Your task to perform on an android device: Is it going to rain this weekend? Image 0: 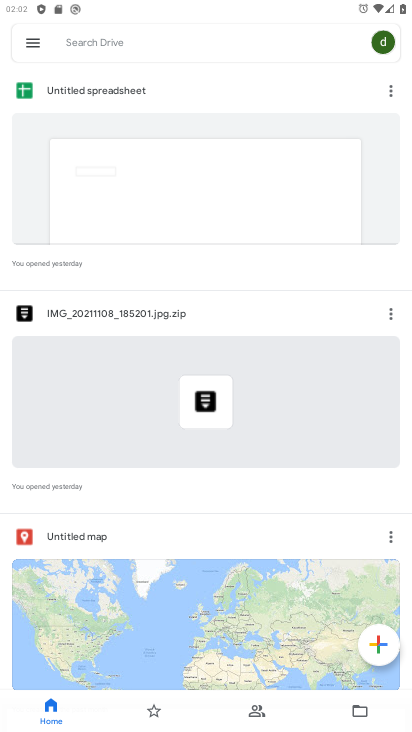
Step 0: press home button
Your task to perform on an android device: Is it going to rain this weekend? Image 1: 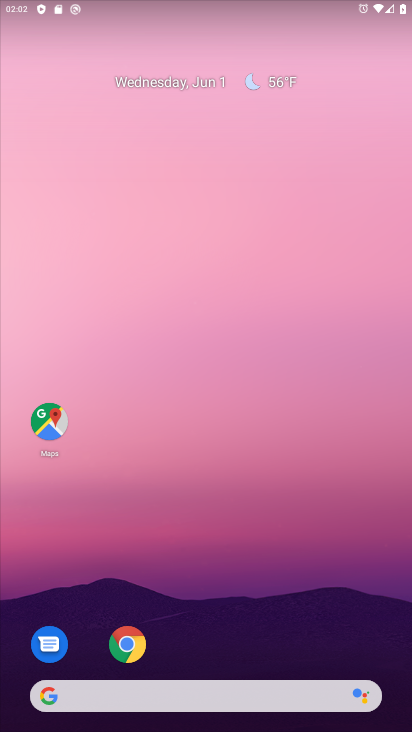
Step 1: drag from (209, 676) to (207, 292)
Your task to perform on an android device: Is it going to rain this weekend? Image 2: 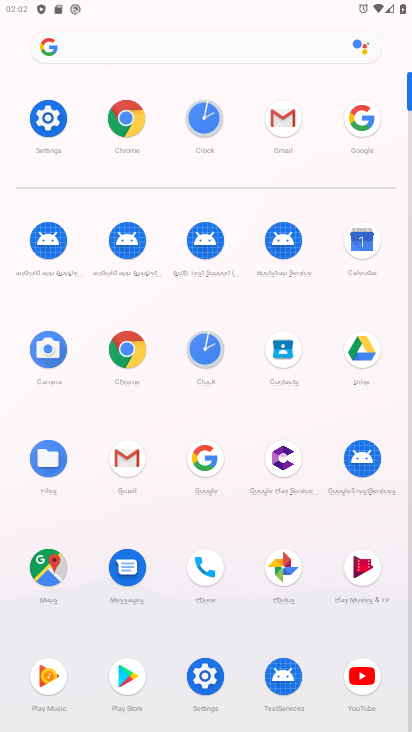
Step 2: click (203, 462)
Your task to perform on an android device: Is it going to rain this weekend? Image 3: 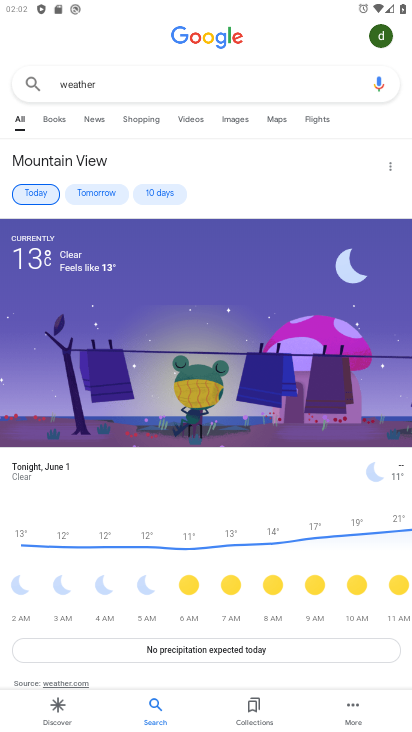
Step 3: click (109, 84)
Your task to perform on an android device: Is it going to rain this weekend? Image 4: 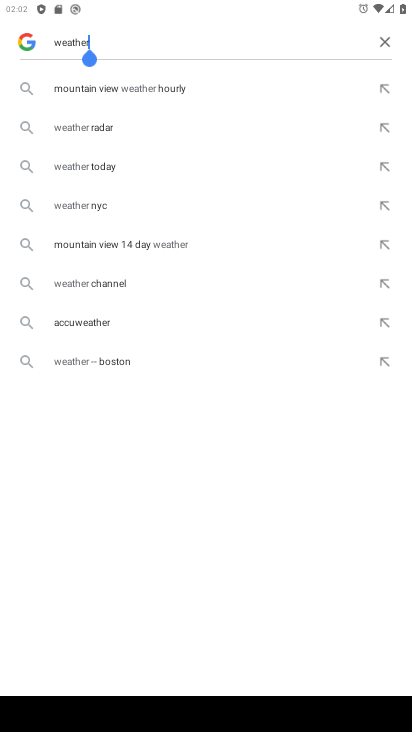
Step 4: click (385, 43)
Your task to perform on an android device: Is it going to rain this weekend? Image 5: 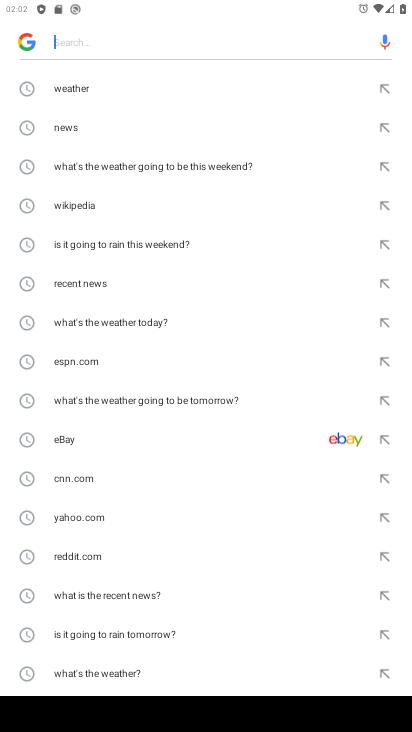
Step 5: click (128, 244)
Your task to perform on an android device: Is it going to rain this weekend? Image 6: 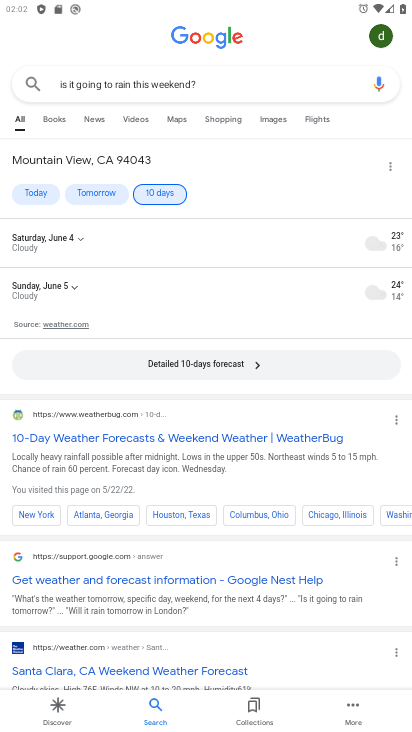
Step 6: task complete